Your task to perform on an android device: turn on priority inbox in the gmail app Image 0: 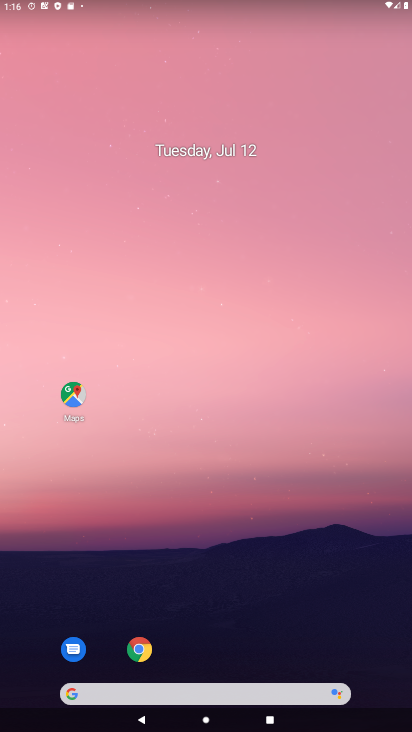
Step 0: drag from (335, 717) to (171, 198)
Your task to perform on an android device: turn on priority inbox in the gmail app Image 1: 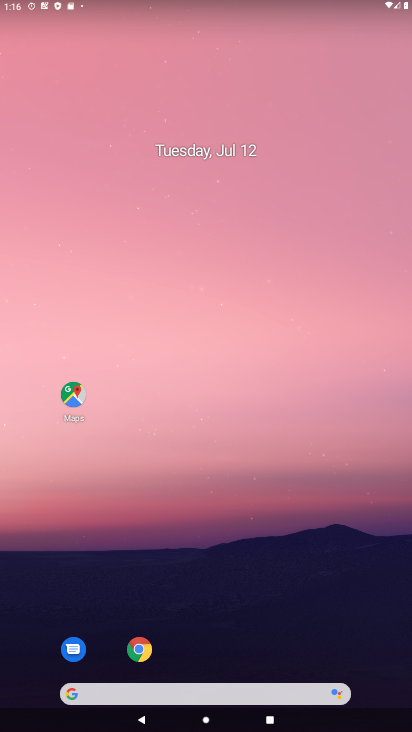
Step 1: drag from (357, 568) to (150, 0)
Your task to perform on an android device: turn on priority inbox in the gmail app Image 2: 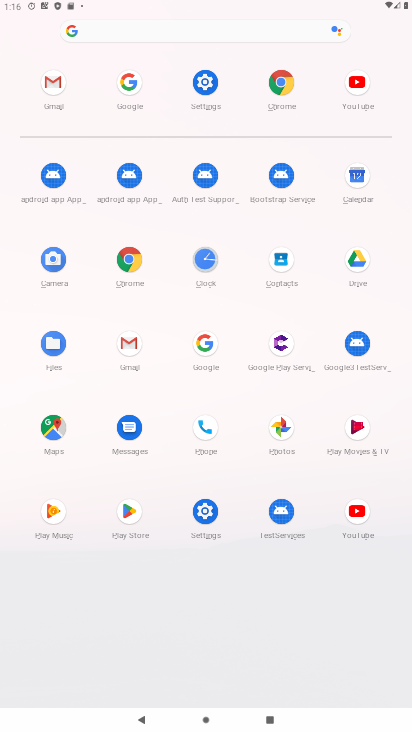
Step 2: click (130, 351)
Your task to perform on an android device: turn on priority inbox in the gmail app Image 3: 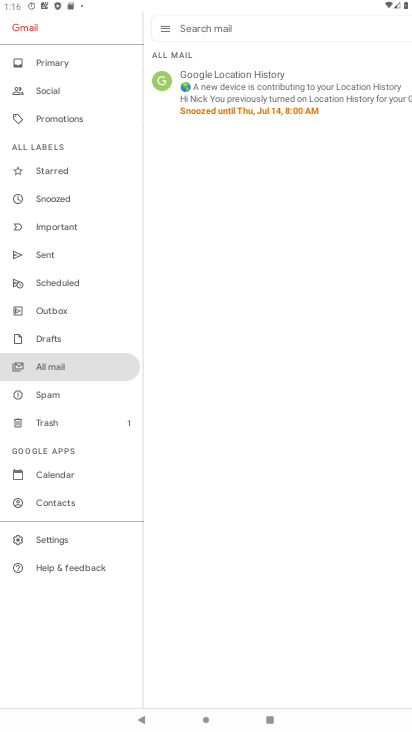
Step 3: click (70, 545)
Your task to perform on an android device: turn on priority inbox in the gmail app Image 4: 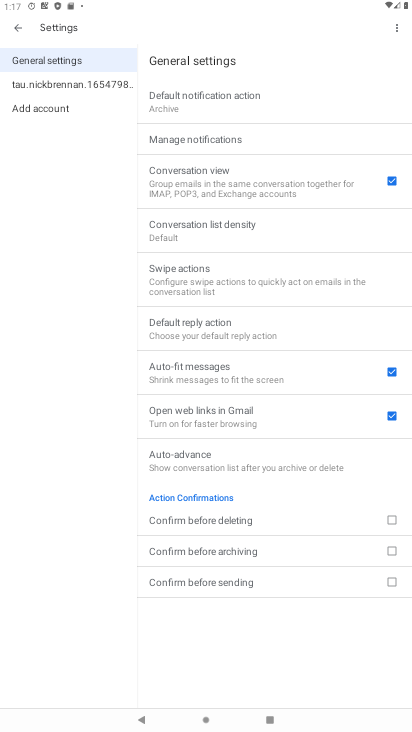
Step 4: click (27, 89)
Your task to perform on an android device: turn on priority inbox in the gmail app Image 5: 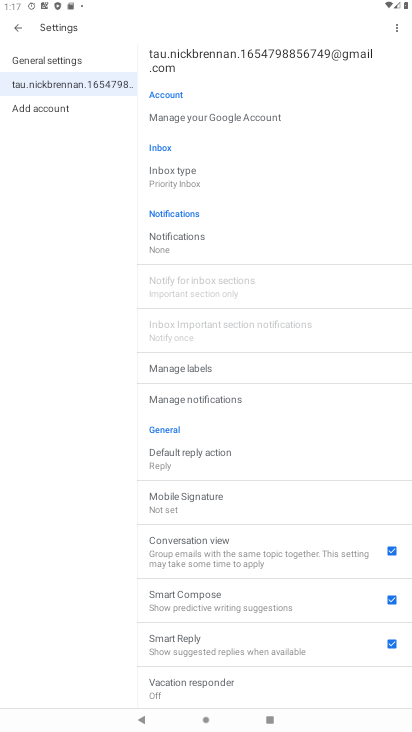
Step 5: click (162, 174)
Your task to perform on an android device: turn on priority inbox in the gmail app Image 6: 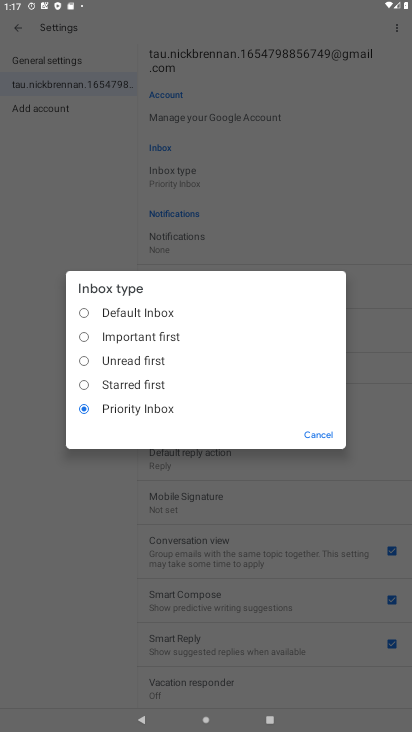
Step 6: task complete